Your task to perform on an android device: Open ESPN.com Image 0: 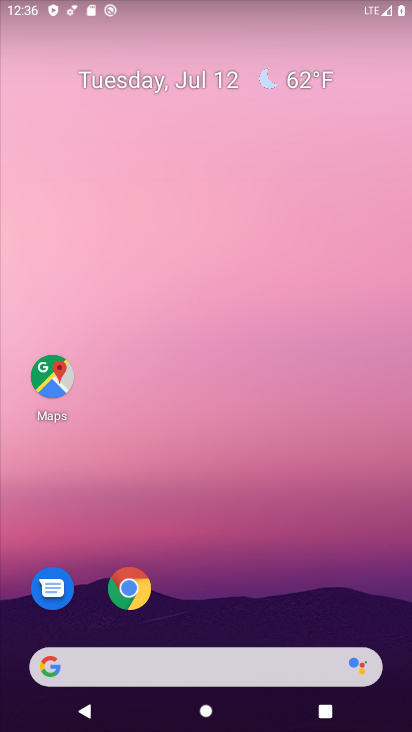
Step 0: click (276, 669)
Your task to perform on an android device: Open ESPN.com Image 1: 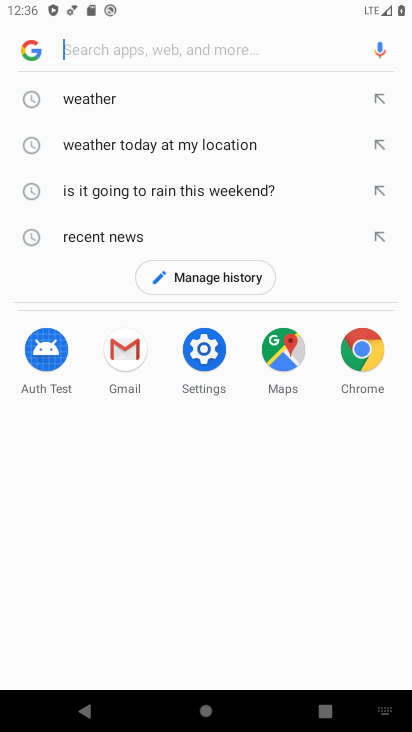
Step 1: type "espn.com"
Your task to perform on an android device: Open ESPN.com Image 2: 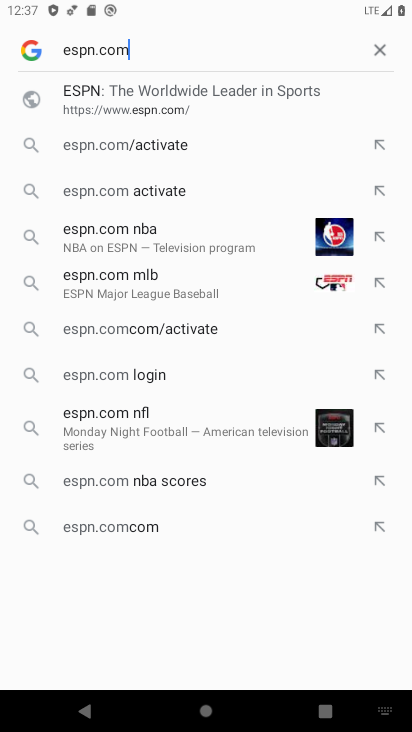
Step 2: click (127, 108)
Your task to perform on an android device: Open ESPN.com Image 3: 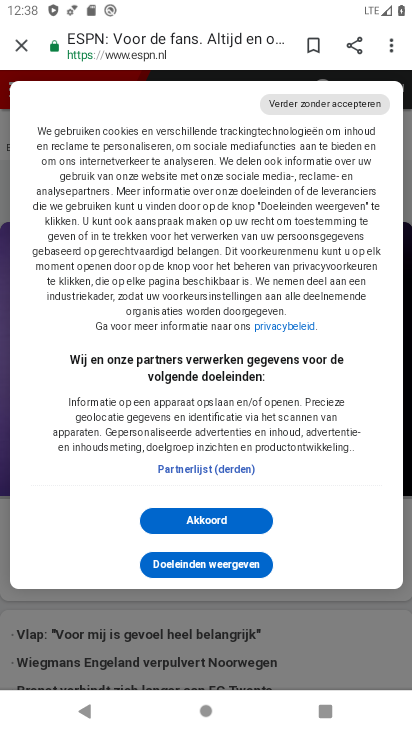
Step 3: task complete